Your task to perform on an android device: Go to Yahoo.com Image 0: 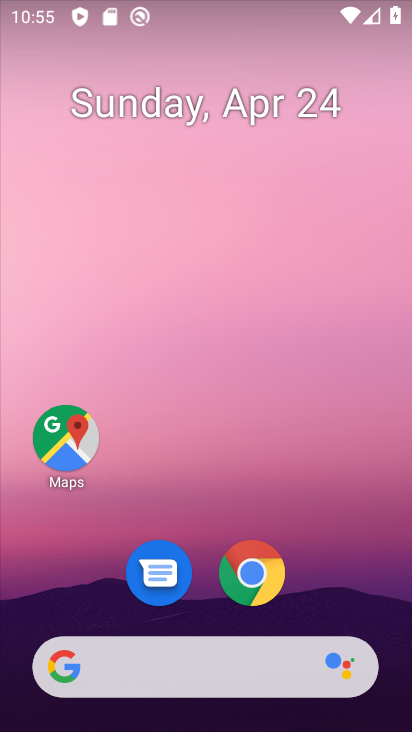
Step 0: click (256, 570)
Your task to perform on an android device: Go to Yahoo.com Image 1: 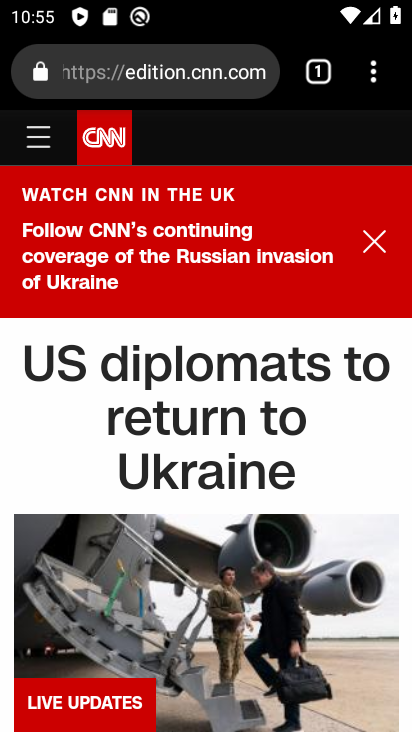
Step 1: drag from (371, 72) to (217, 162)
Your task to perform on an android device: Go to Yahoo.com Image 2: 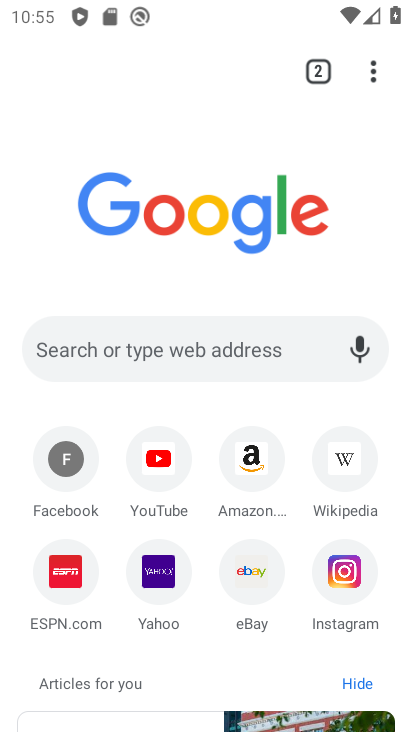
Step 2: click (197, 354)
Your task to perform on an android device: Go to Yahoo.com Image 3: 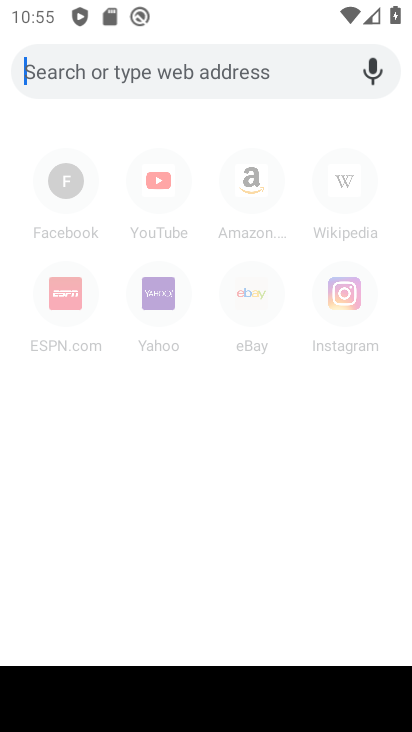
Step 3: type "Yahoo.com"
Your task to perform on an android device: Go to Yahoo.com Image 4: 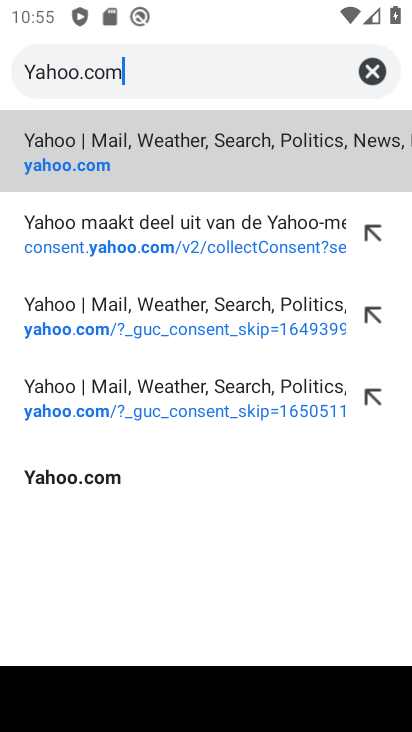
Step 4: click (101, 131)
Your task to perform on an android device: Go to Yahoo.com Image 5: 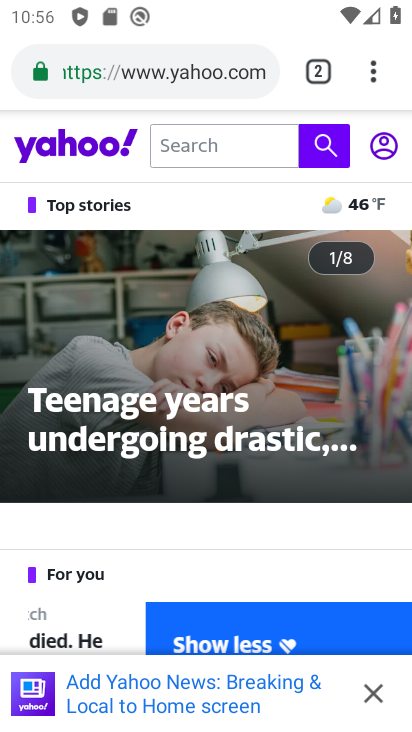
Step 5: task complete